Your task to perform on an android device: Open Android settings Image 0: 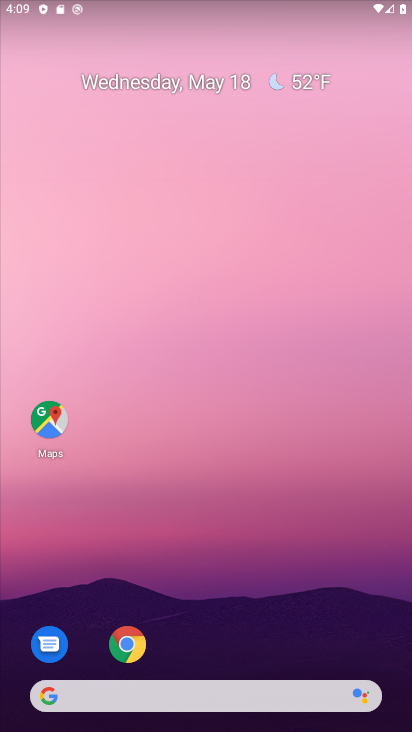
Step 0: drag from (210, 690) to (220, 13)
Your task to perform on an android device: Open Android settings Image 1: 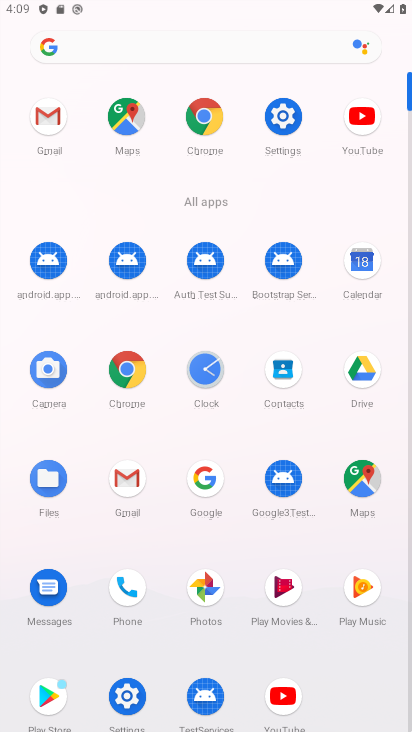
Step 1: click (291, 128)
Your task to perform on an android device: Open Android settings Image 2: 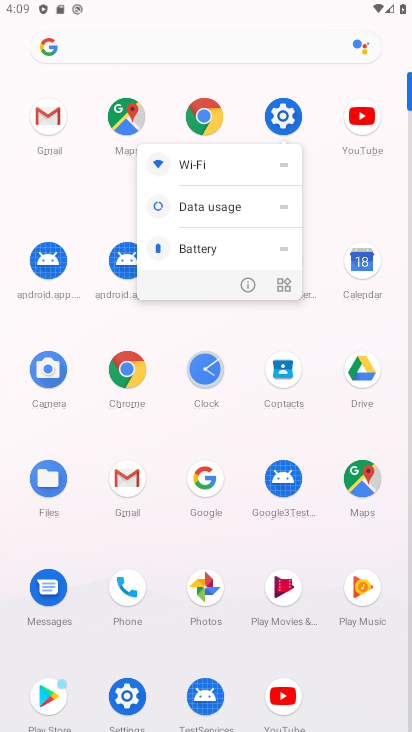
Step 2: click (272, 110)
Your task to perform on an android device: Open Android settings Image 3: 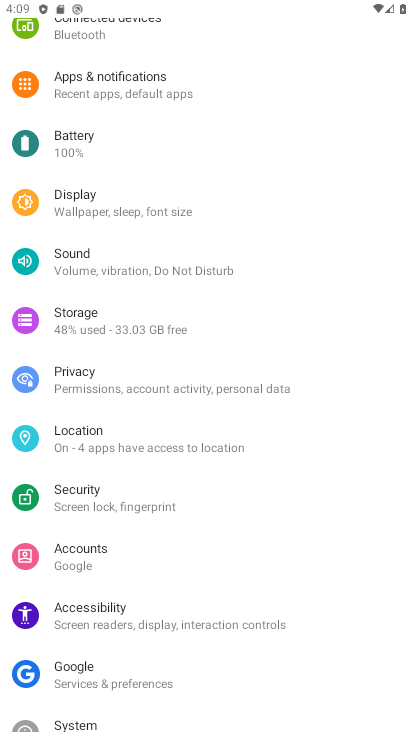
Step 3: drag from (84, 623) to (63, 0)
Your task to perform on an android device: Open Android settings Image 4: 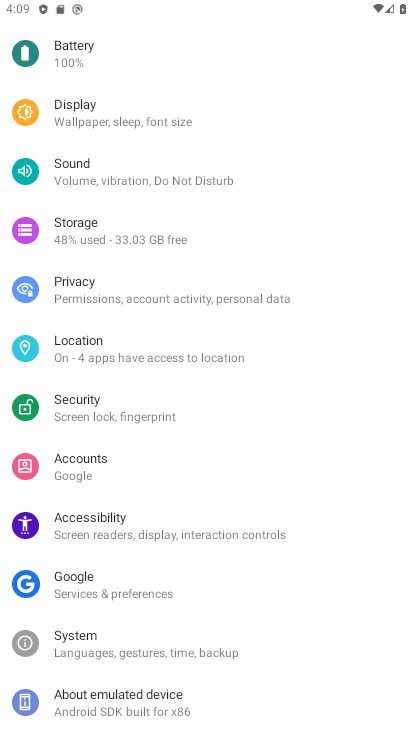
Step 4: click (149, 720)
Your task to perform on an android device: Open Android settings Image 5: 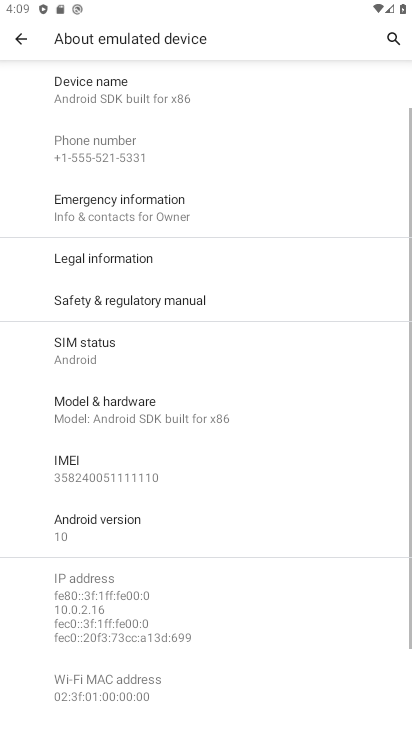
Step 5: click (106, 514)
Your task to perform on an android device: Open Android settings Image 6: 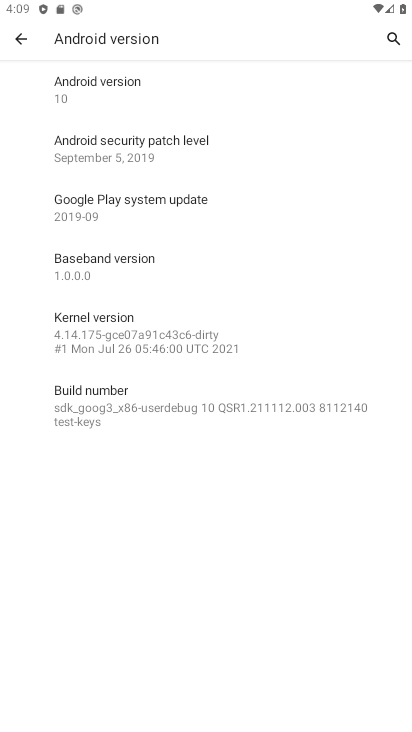
Step 6: task complete